Your task to perform on an android device: read, delete, or share a saved page in the chrome app Image 0: 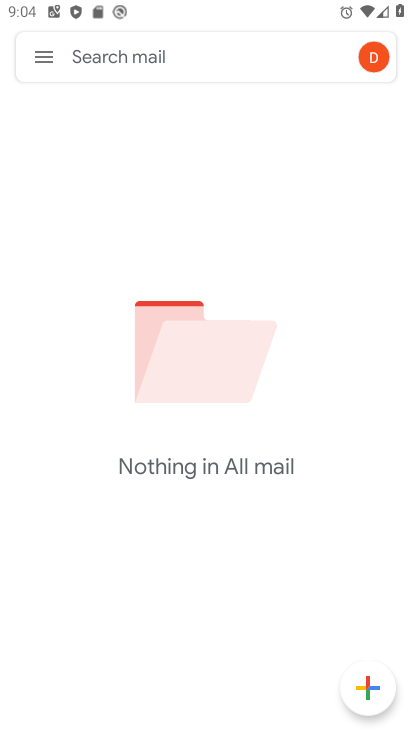
Step 0: press home button
Your task to perform on an android device: read, delete, or share a saved page in the chrome app Image 1: 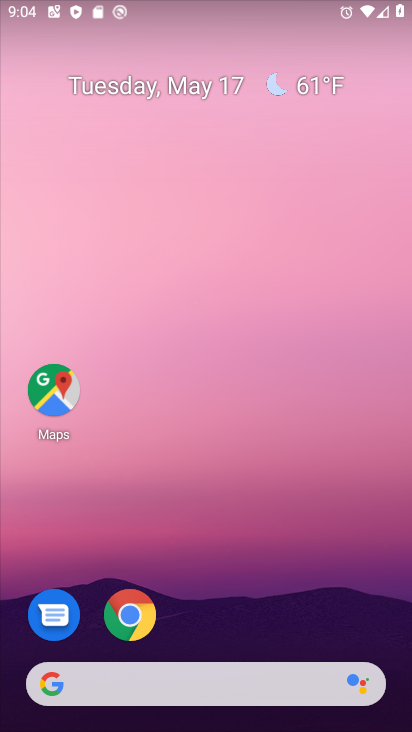
Step 1: click (130, 597)
Your task to perform on an android device: read, delete, or share a saved page in the chrome app Image 2: 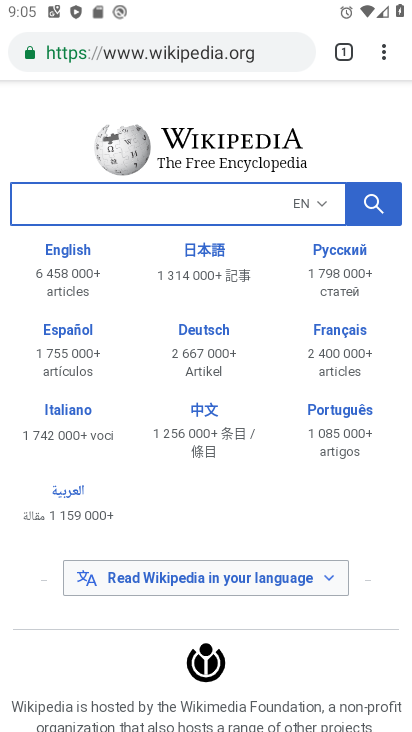
Step 2: click (385, 52)
Your task to perform on an android device: read, delete, or share a saved page in the chrome app Image 3: 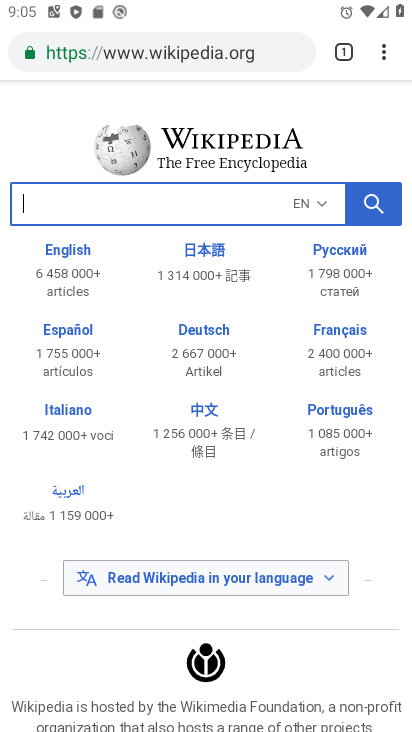
Step 3: click (389, 64)
Your task to perform on an android device: read, delete, or share a saved page in the chrome app Image 4: 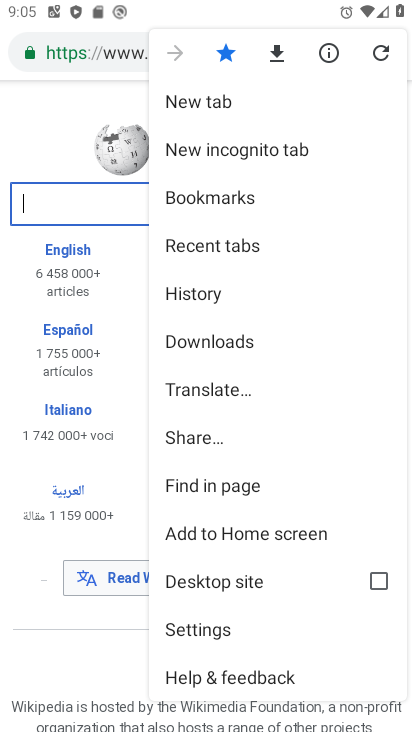
Step 4: click (223, 336)
Your task to perform on an android device: read, delete, or share a saved page in the chrome app Image 5: 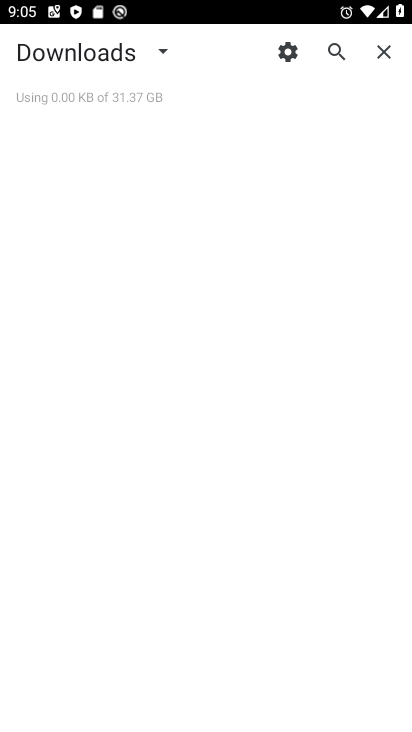
Step 5: task complete